Your task to perform on an android device: turn on bluetooth scan Image 0: 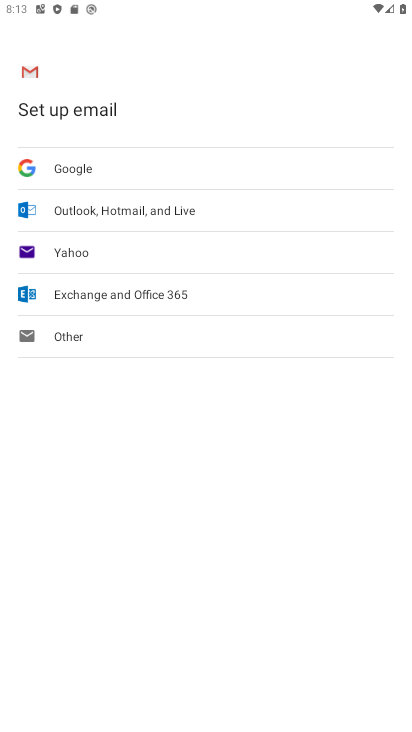
Step 0: press home button
Your task to perform on an android device: turn on bluetooth scan Image 1: 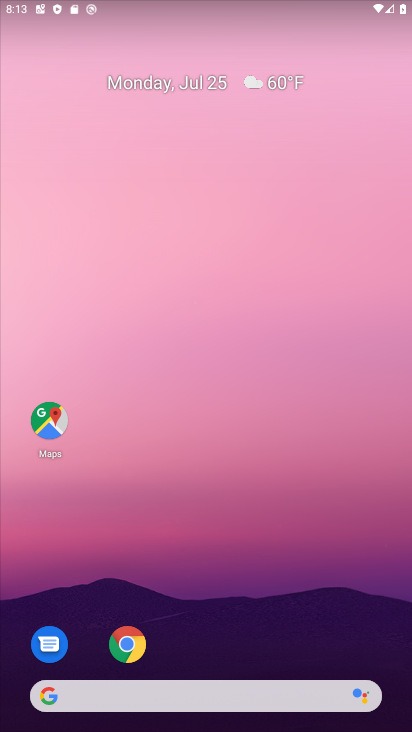
Step 1: drag from (215, 609) to (308, 66)
Your task to perform on an android device: turn on bluetooth scan Image 2: 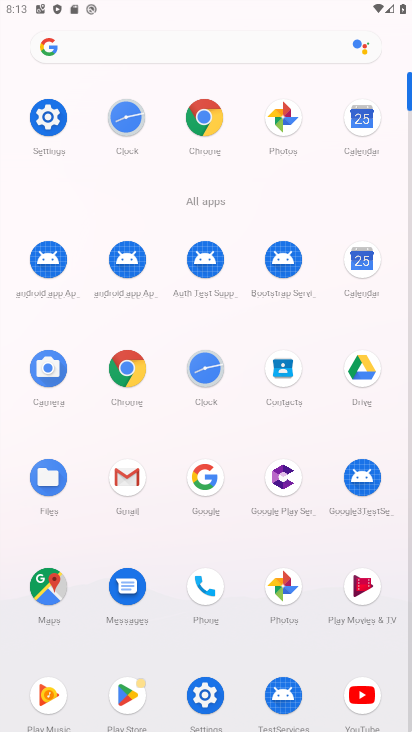
Step 2: click (199, 708)
Your task to perform on an android device: turn on bluetooth scan Image 3: 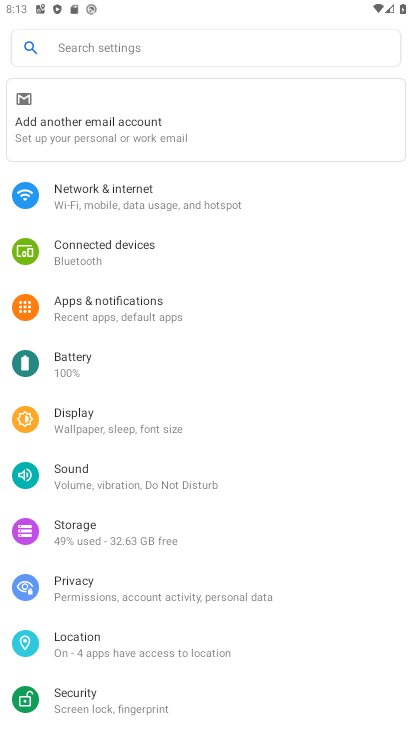
Step 3: click (137, 191)
Your task to perform on an android device: turn on bluetooth scan Image 4: 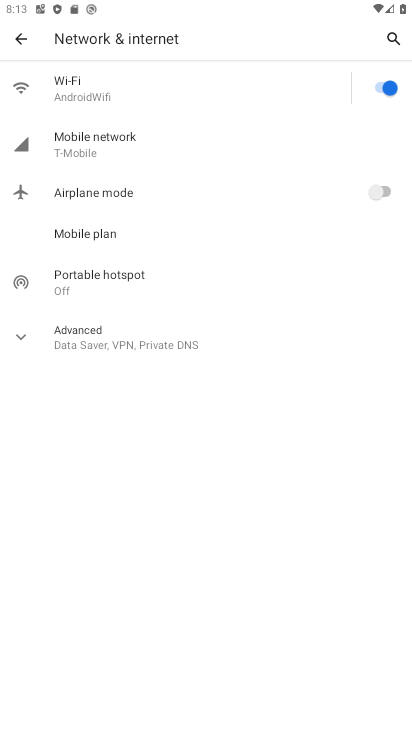
Step 4: click (14, 34)
Your task to perform on an android device: turn on bluetooth scan Image 5: 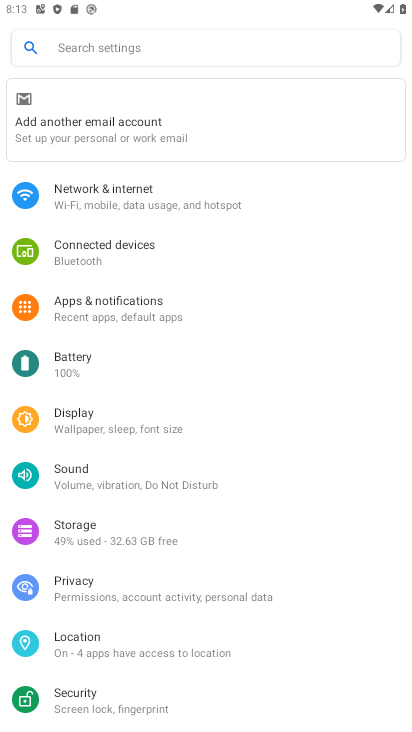
Step 5: click (118, 253)
Your task to perform on an android device: turn on bluetooth scan Image 6: 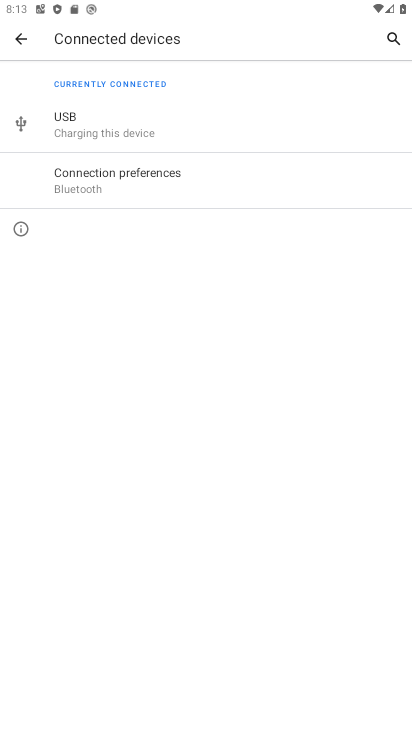
Step 6: click (144, 181)
Your task to perform on an android device: turn on bluetooth scan Image 7: 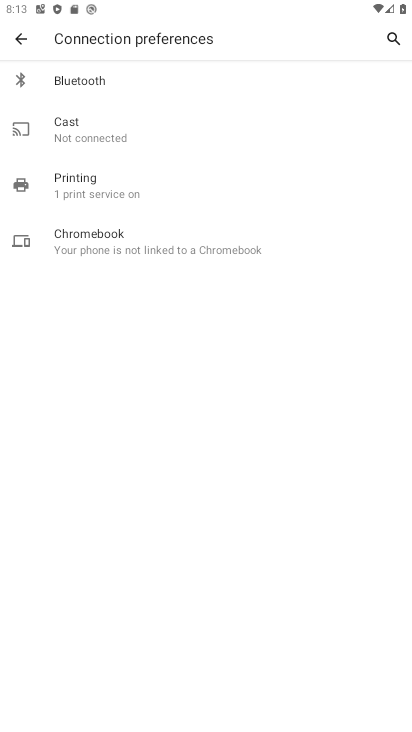
Step 7: click (203, 87)
Your task to perform on an android device: turn on bluetooth scan Image 8: 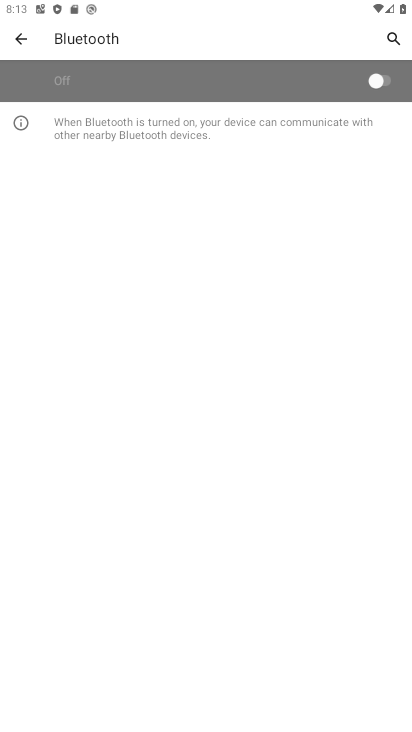
Step 8: click (382, 83)
Your task to perform on an android device: turn on bluetooth scan Image 9: 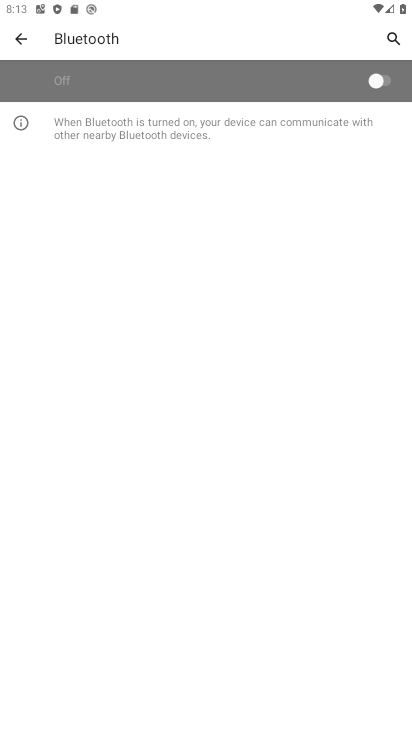
Step 9: click (378, 83)
Your task to perform on an android device: turn on bluetooth scan Image 10: 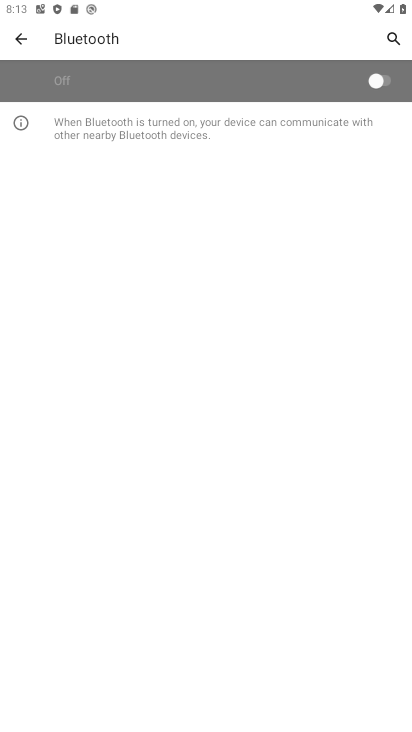
Step 10: task complete